Your task to perform on an android device: Open Youtube and go to the subscriptions tab Image 0: 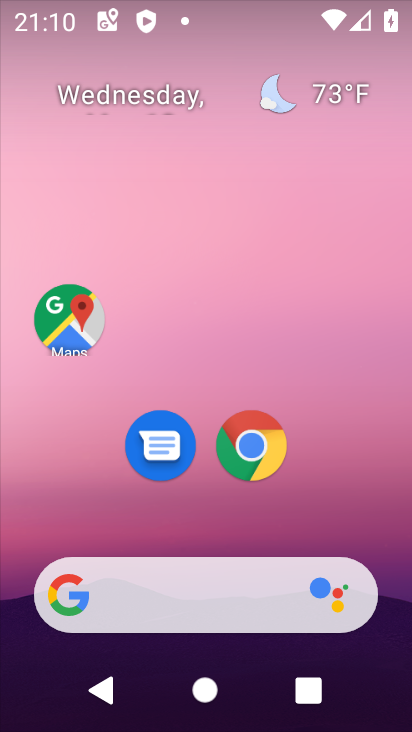
Step 0: drag from (320, 499) to (342, 217)
Your task to perform on an android device: Open Youtube and go to the subscriptions tab Image 1: 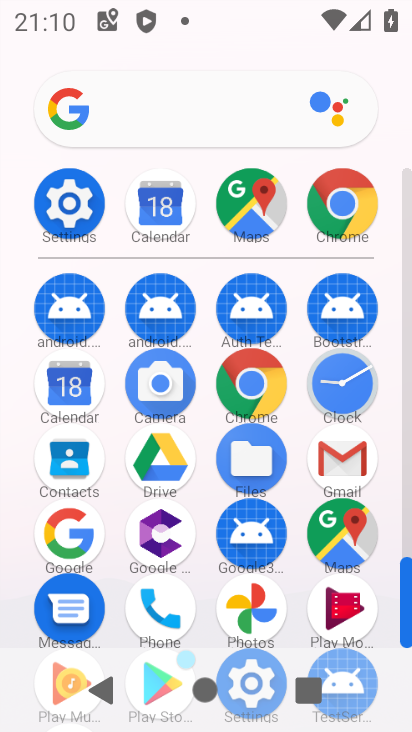
Step 1: drag from (292, 626) to (338, 136)
Your task to perform on an android device: Open Youtube and go to the subscriptions tab Image 2: 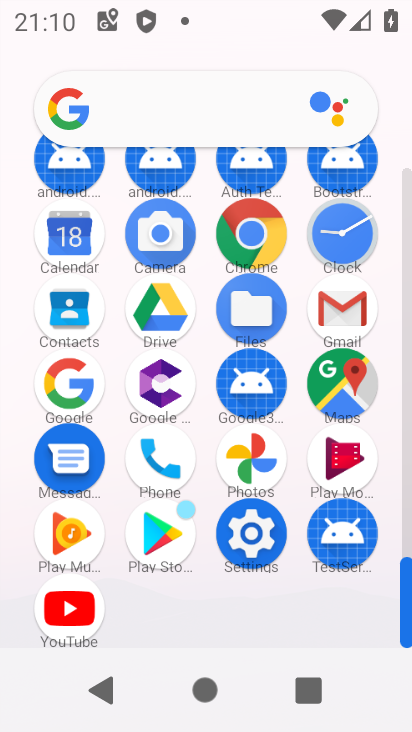
Step 2: click (76, 602)
Your task to perform on an android device: Open Youtube and go to the subscriptions tab Image 3: 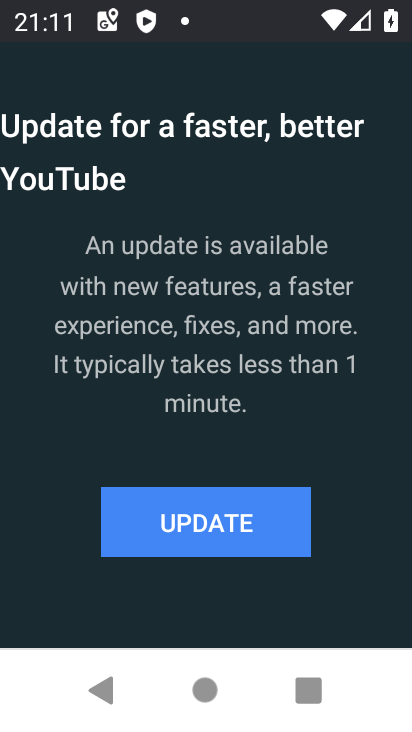
Step 3: task complete